Your task to perform on an android device: open wifi settings Image 0: 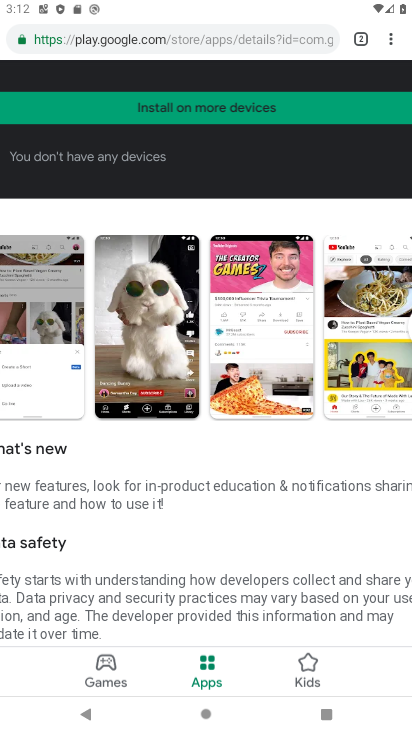
Step 0: click (384, 42)
Your task to perform on an android device: open wifi settings Image 1: 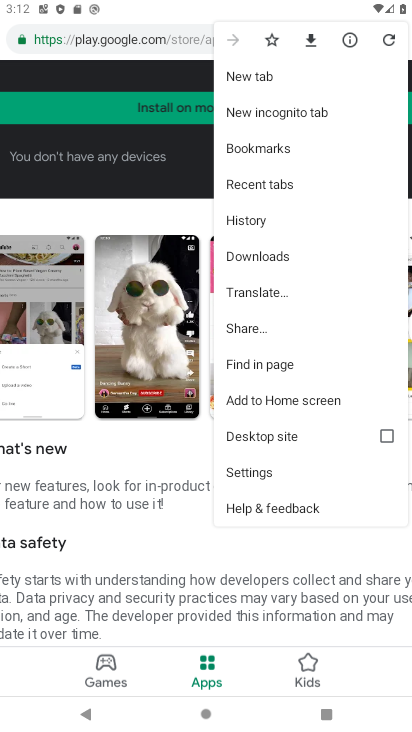
Step 1: click (245, 459)
Your task to perform on an android device: open wifi settings Image 2: 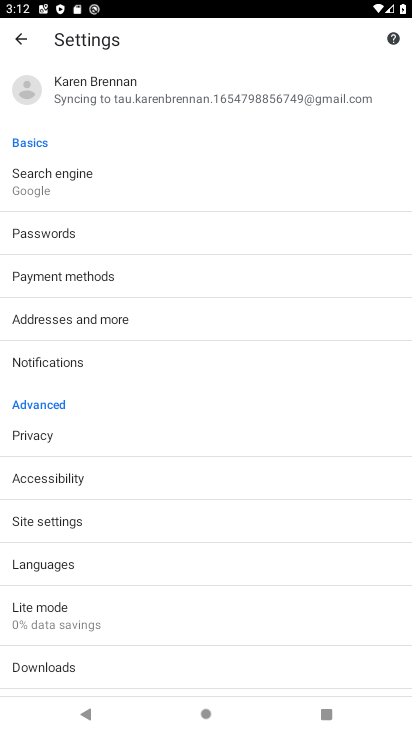
Step 2: press home button
Your task to perform on an android device: open wifi settings Image 3: 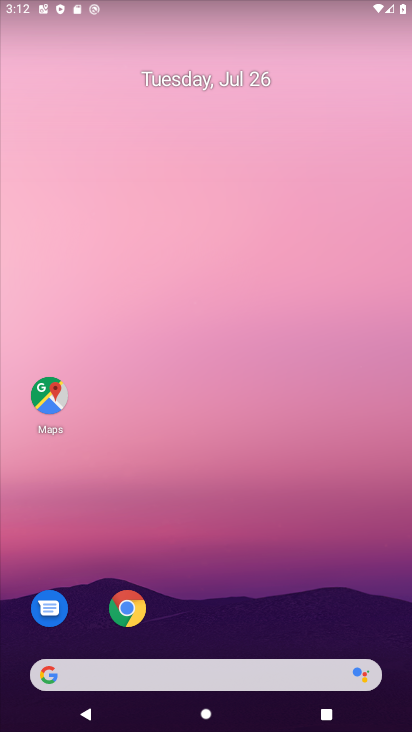
Step 3: drag from (242, 645) to (227, 200)
Your task to perform on an android device: open wifi settings Image 4: 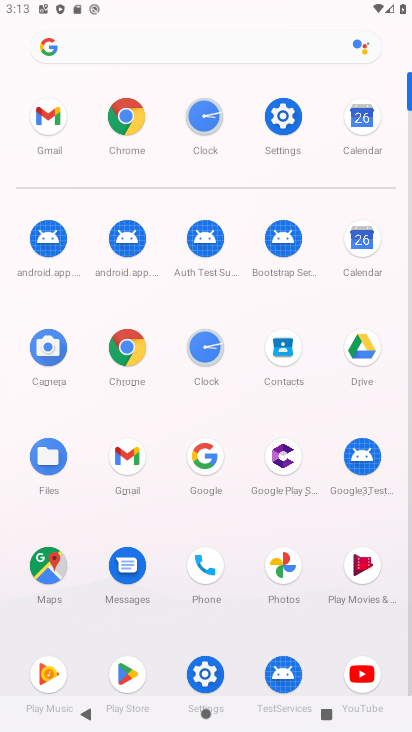
Step 4: click (279, 123)
Your task to perform on an android device: open wifi settings Image 5: 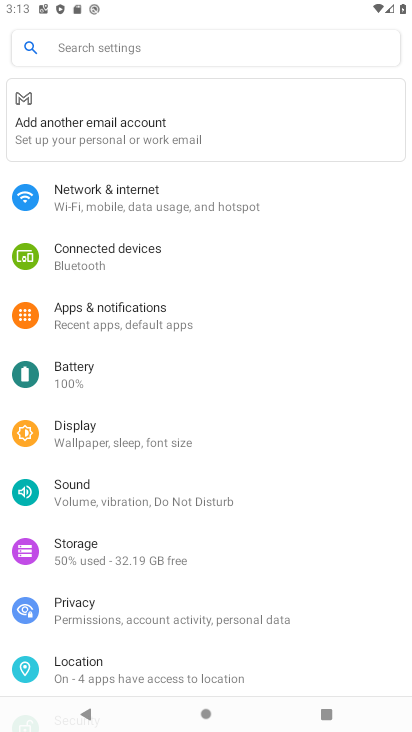
Step 5: click (257, 189)
Your task to perform on an android device: open wifi settings Image 6: 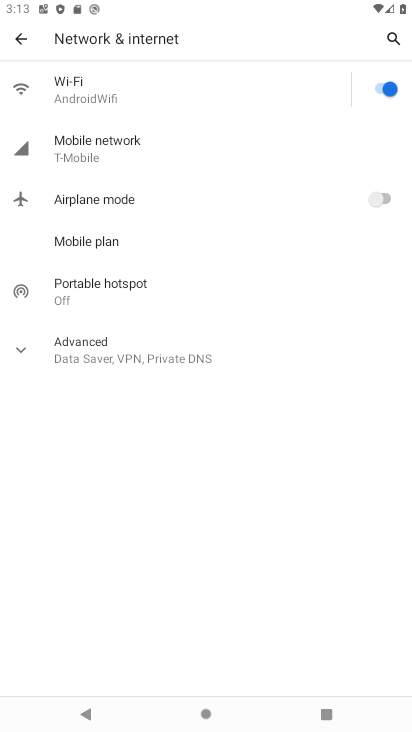
Step 6: click (196, 109)
Your task to perform on an android device: open wifi settings Image 7: 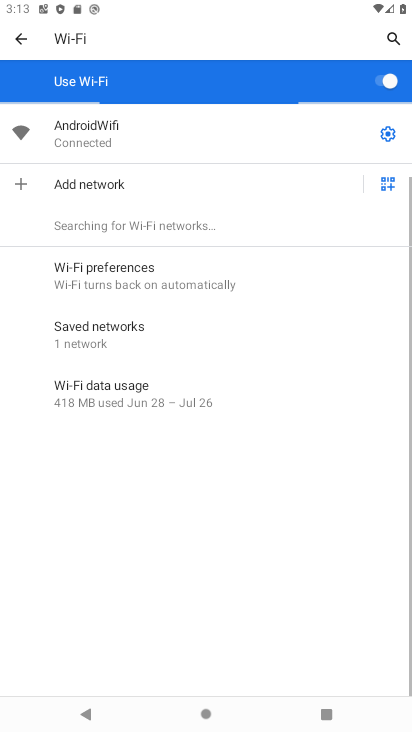
Step 7: task complete